Your task to perform on an android device: find which apps use the phone's location Image 0: 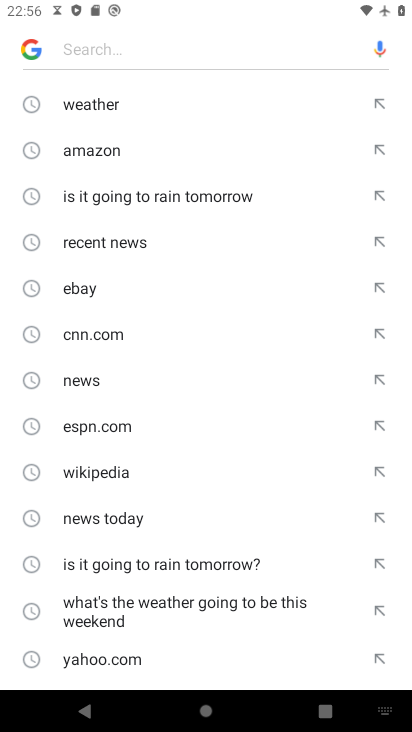
Step 0: press back button
Your task to perform on an android device: find which apps use the phone's location Image 1: 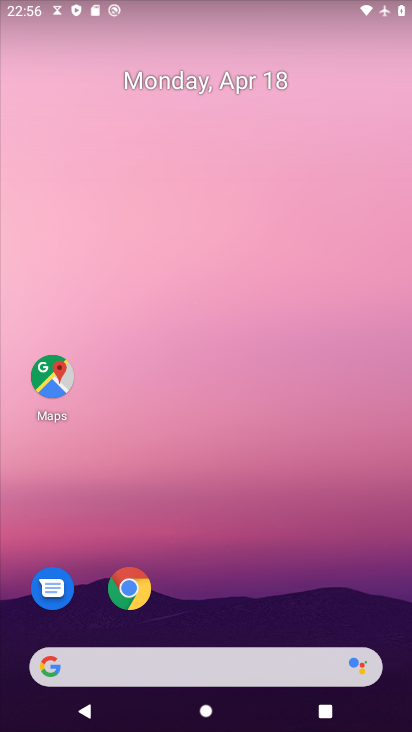
Step 1: drag from (236, 532) to (124, 44)
Your task to perform on an android device: find which apps use the phone's location Image 2: 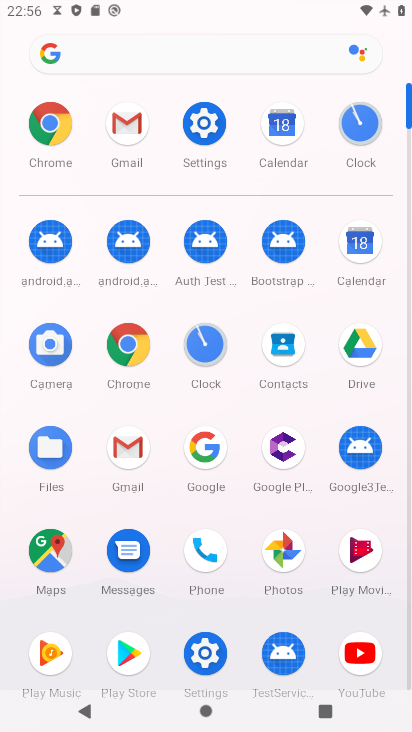
Step 2: click (200, 645)
Your task to perform on an android device: find which apps use the phone's location Image 3: 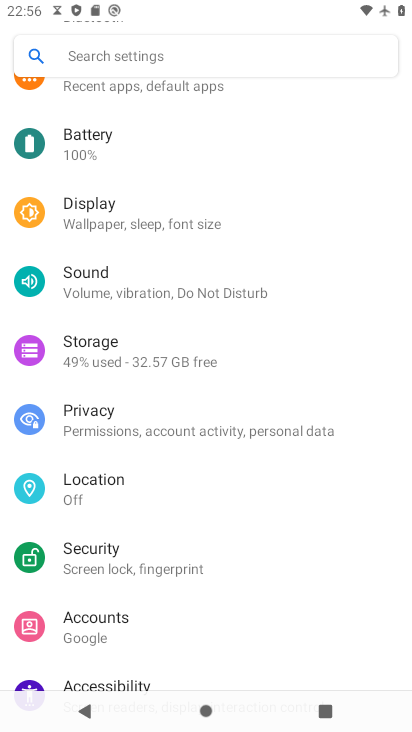
Step 3: drag from (233, 194) to (230, 139)
Your task to perform on an android device: find which apps use the phone's location Image 4: 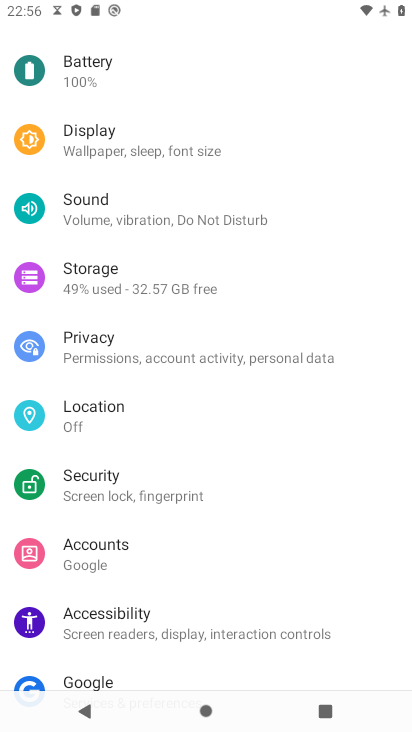
Step 4: click (115, 412)
Your task to perform on an android device: find which apps use the phone's location Image 5: 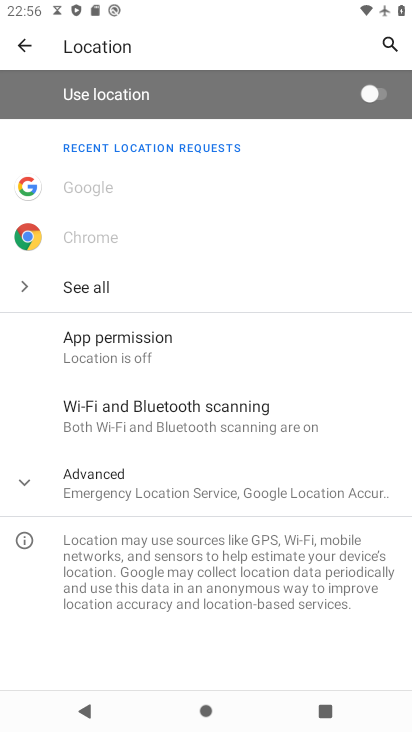
Step 5: click (172, 343)
Your task to perform on an android device: find which apps use the phone's location Image 6: 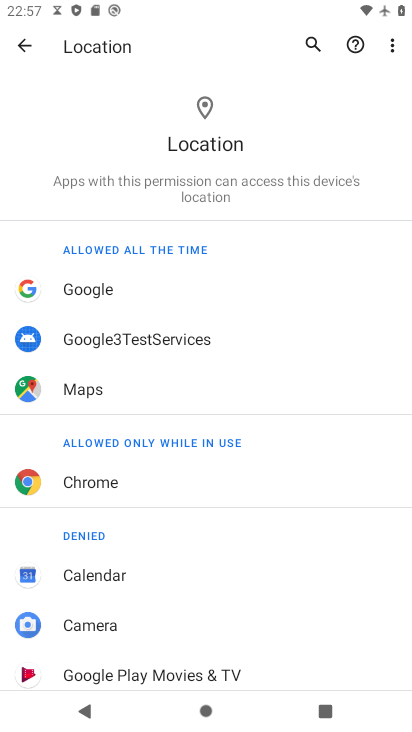
Step 6: task complete